Your task to perform on an android device: Search for flights from Barcelona to Mexico city Image 0: 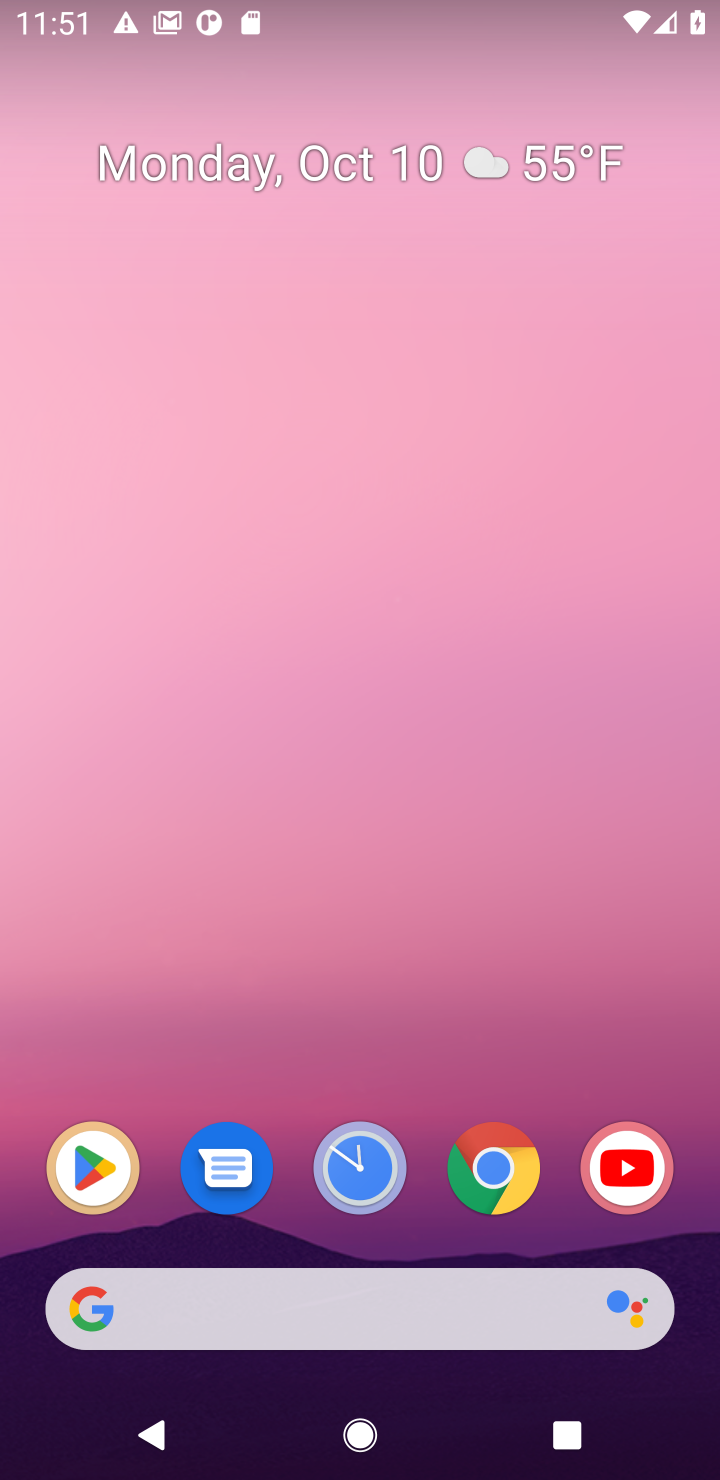
Step 0: click (517, 1164)
Your task to perform on an android device: Search for flights from Barcelona to Mexico city Image 1: 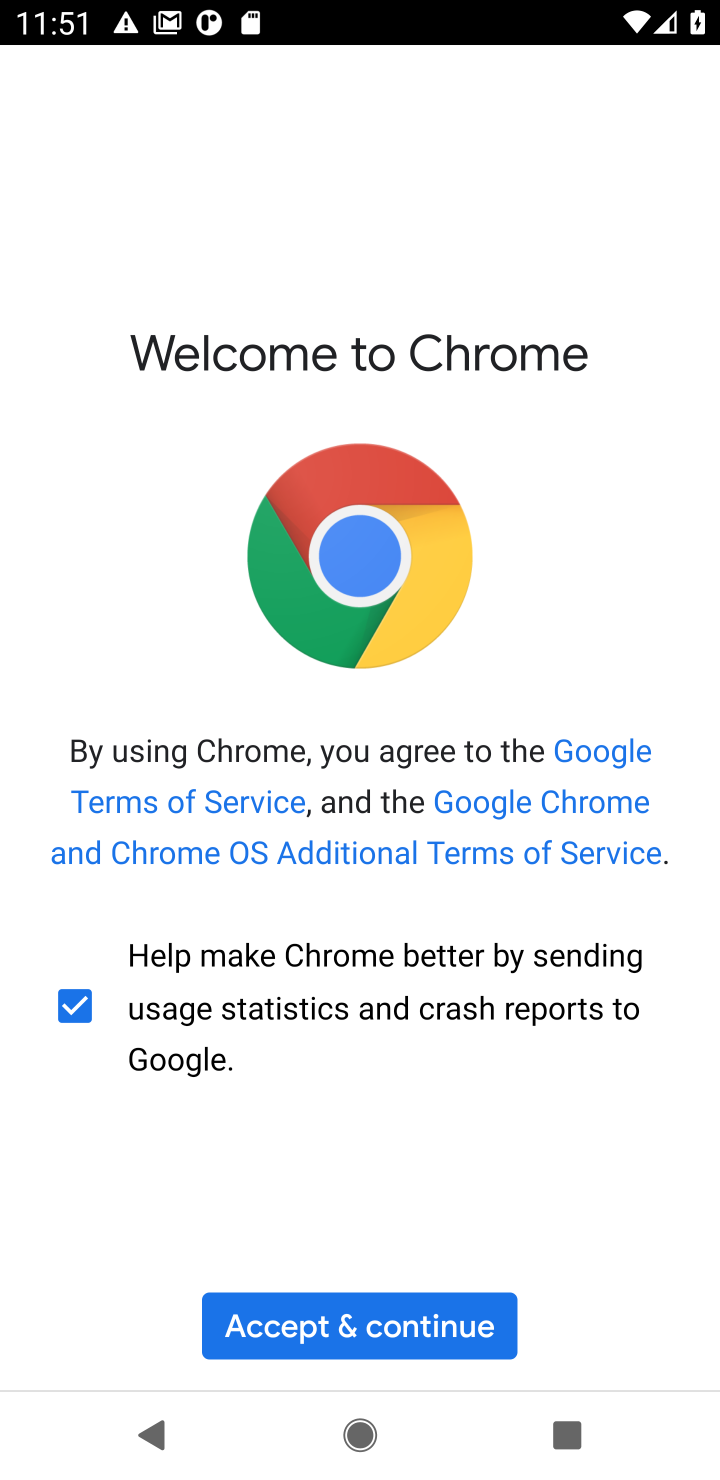
Step 1: click (242, 1308)
Your task to perform on an android device: Search for flights from Barcelona to Mexico city Image 2: 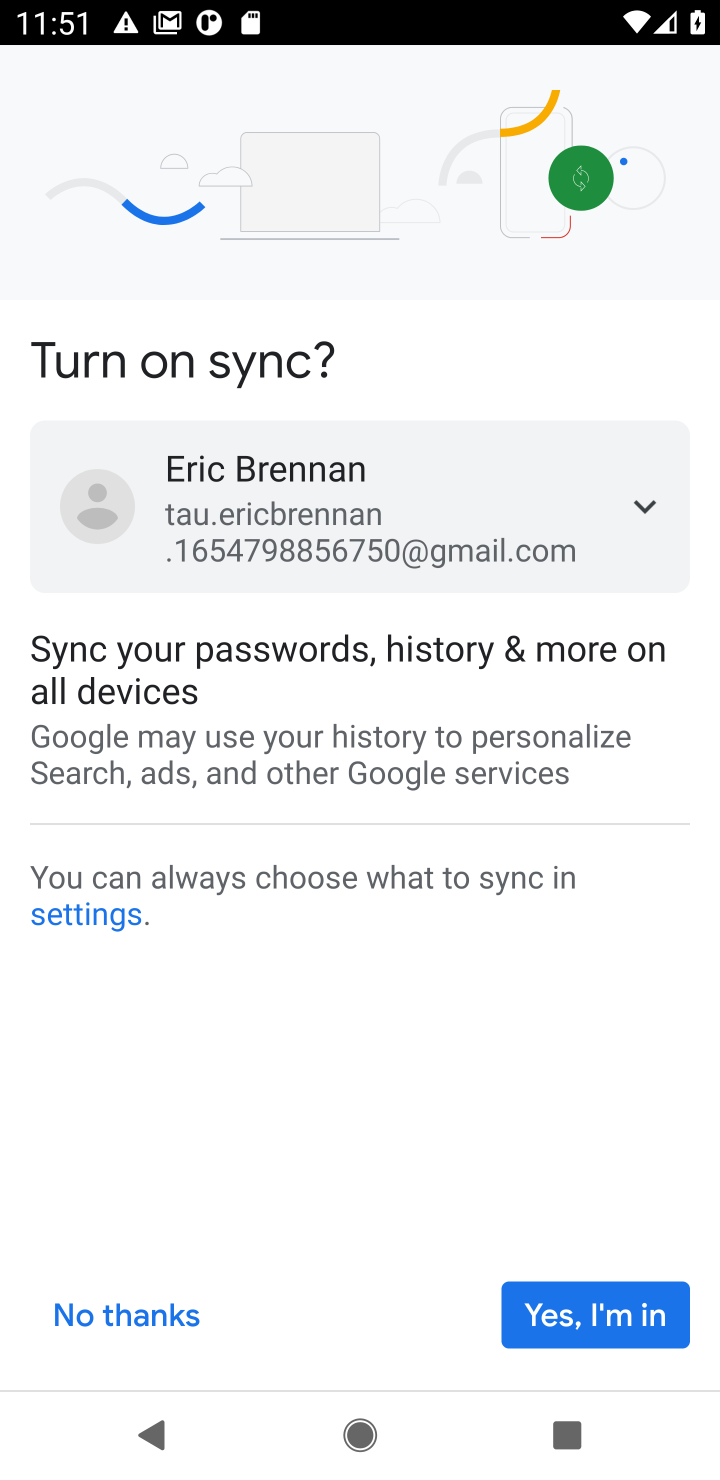
Step 2: click (656, 1314)
Your task to perform on an android device: Search for flights from Barcelona to Mexico city Image 3: 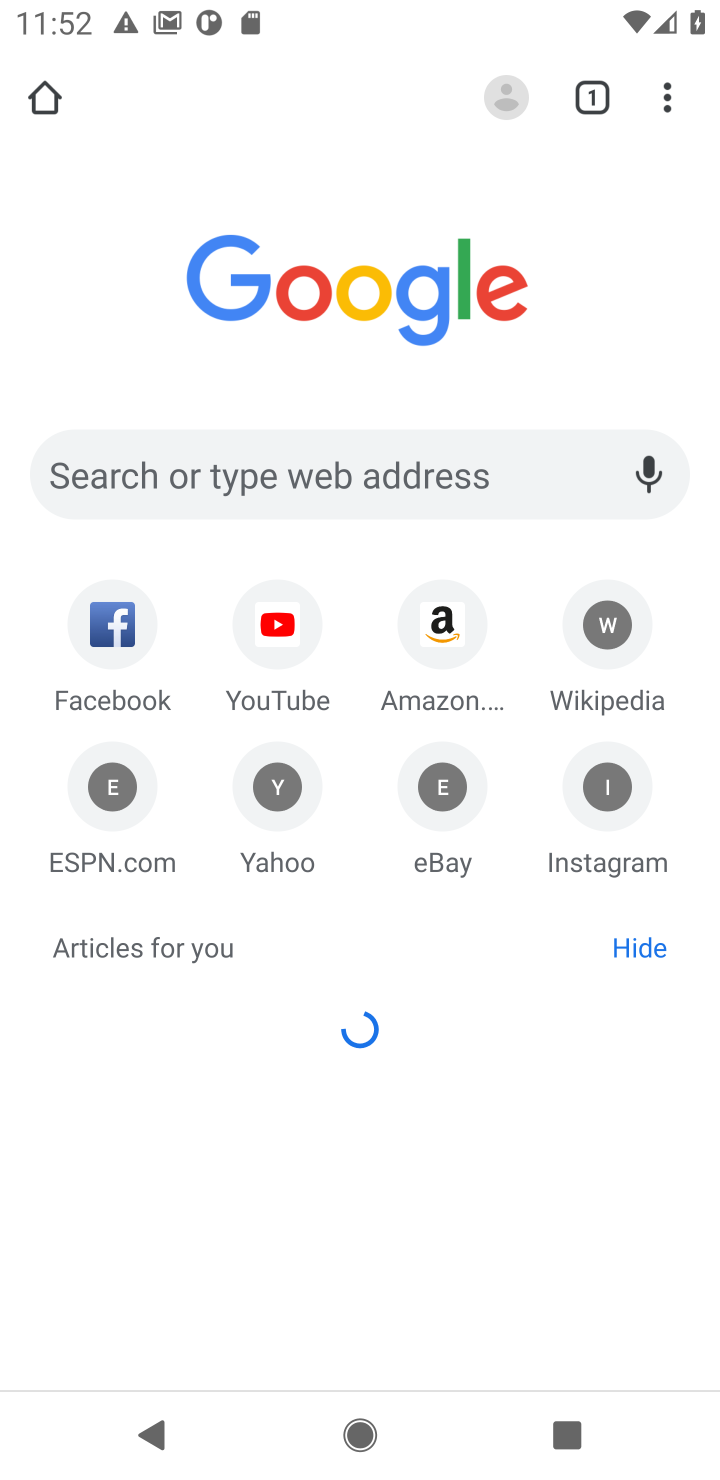
Step 3: click (497, 474)
Your task to perform on an android device: Search for flights from Barcelona to Mexico city Image 4: 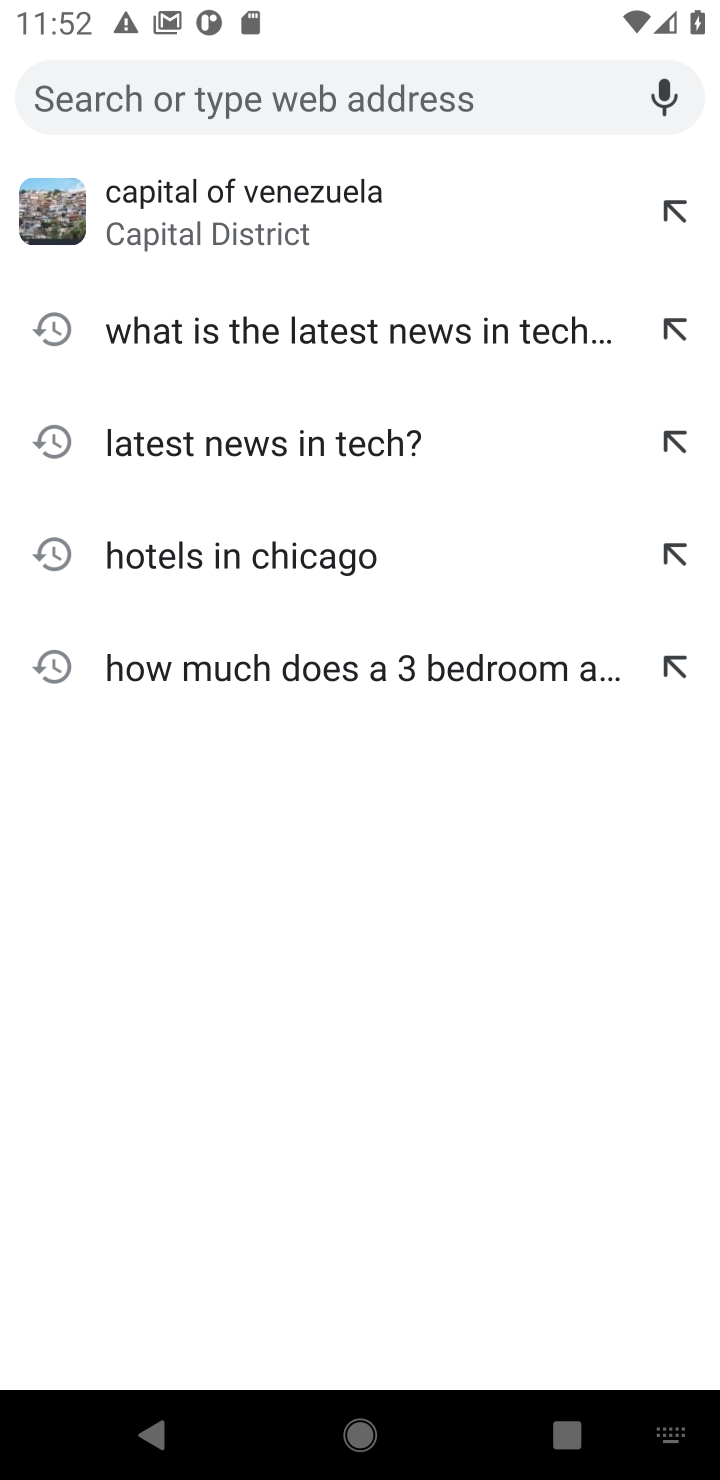
Step 4: type "flights from Barcelona to Mexico city"
Your task to perform on an android device: Search for flights from Barcelona to Mexico city Image 5: 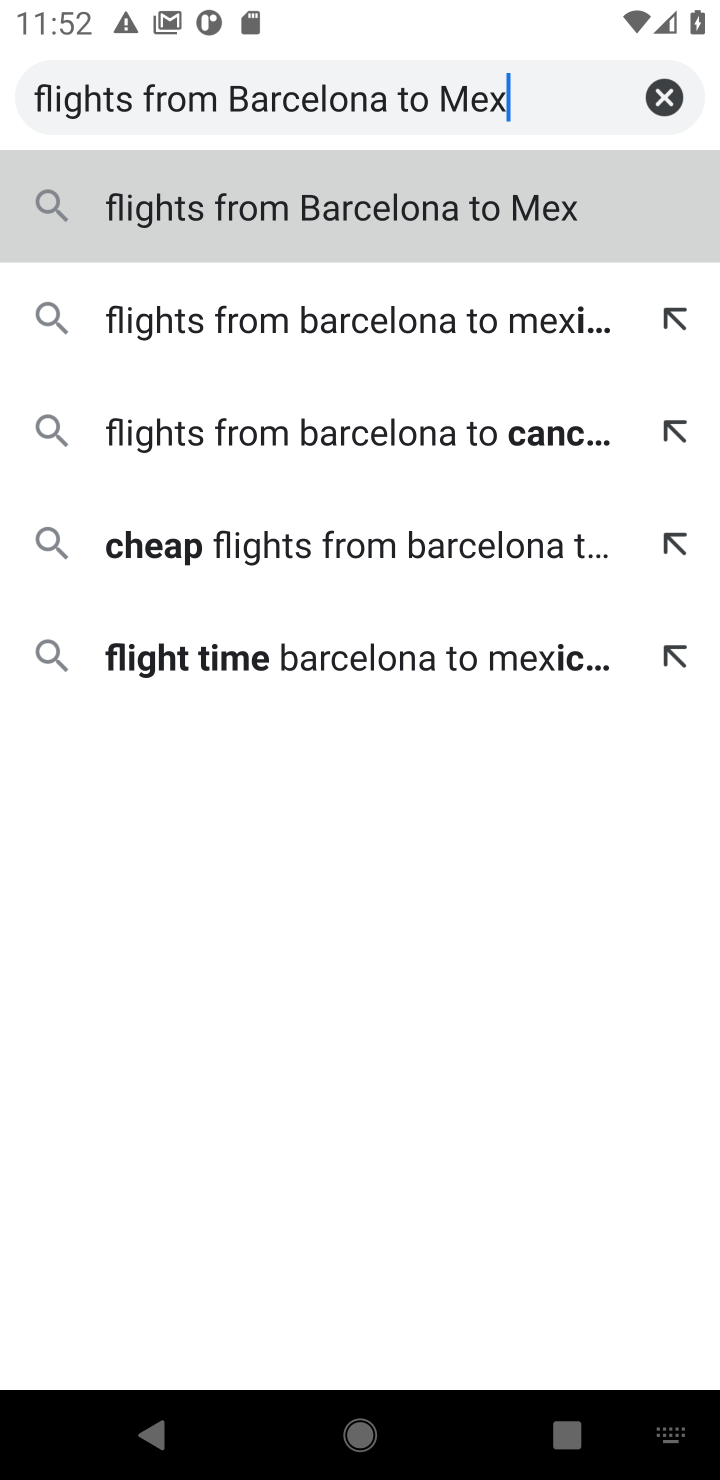
Step 5: click (596, 176)
Your task to perform on an android device: Search for flights from Barcelona to Mexico city Image 6: 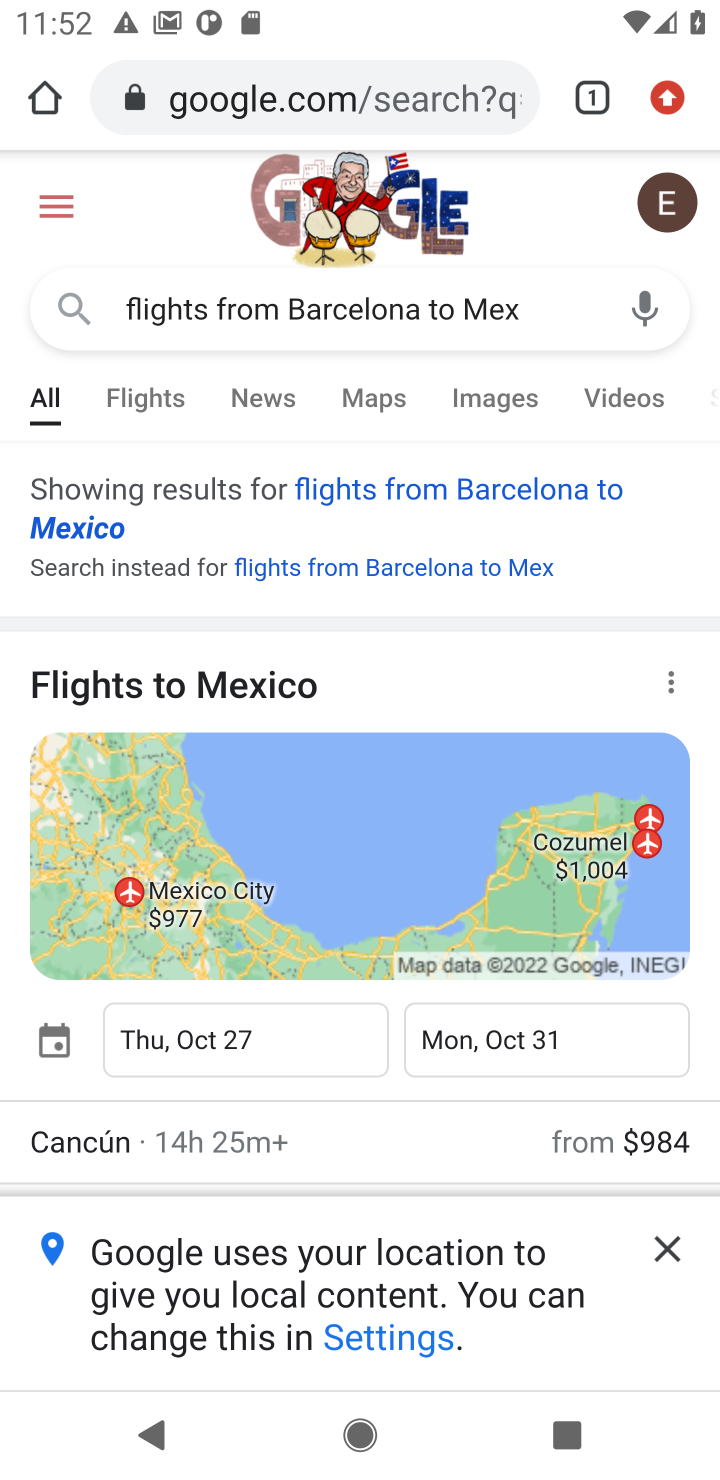
Step 6: click (123, 391)
Your task to perform on an android device: Search for flights from Barcelona to Mexico city Image 7: 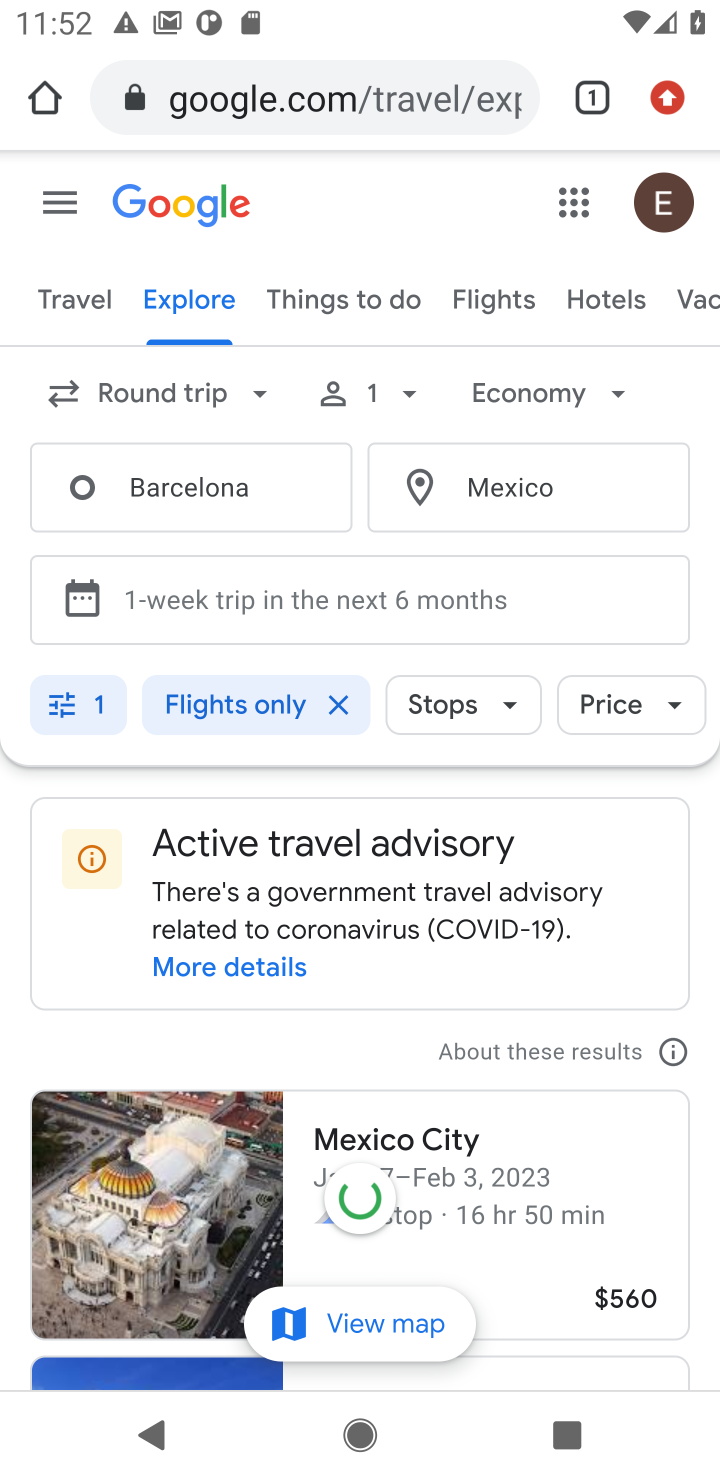
Step 7: task complete